Your task to perform on an android device: see tabs open on other devices in the chrome app Image 0: 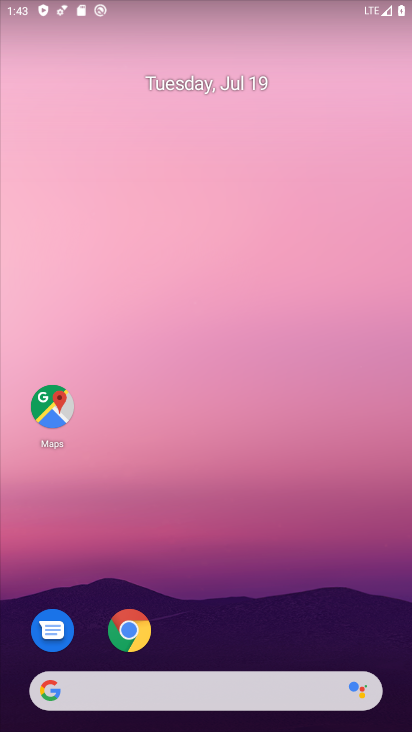
Step 0: click (134, 627)
Your task to perform on an android device: see tabs open on other devices in the chrome app Image 1: 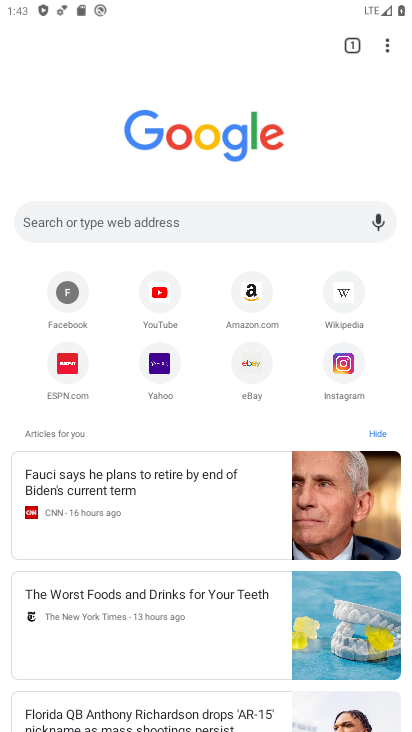
Step 1: click (384, 45)
Your task to perform on an android device: see tabs open on other devices in the chrome app Image 2: 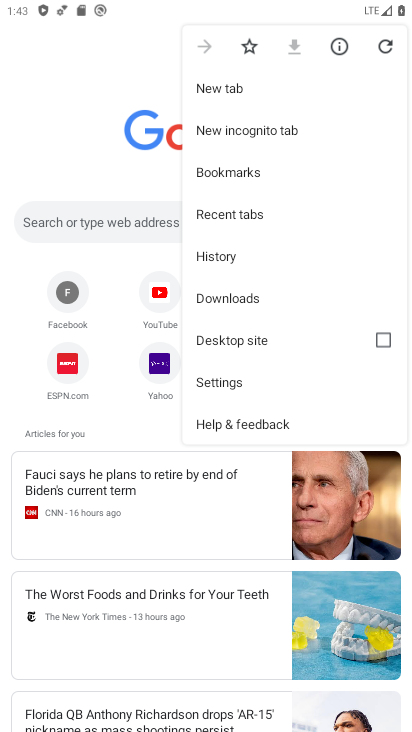
Step 2: click (267, 213)
Your task to perform on an android device: see tabs open on other devices in the chrome app Image 3: 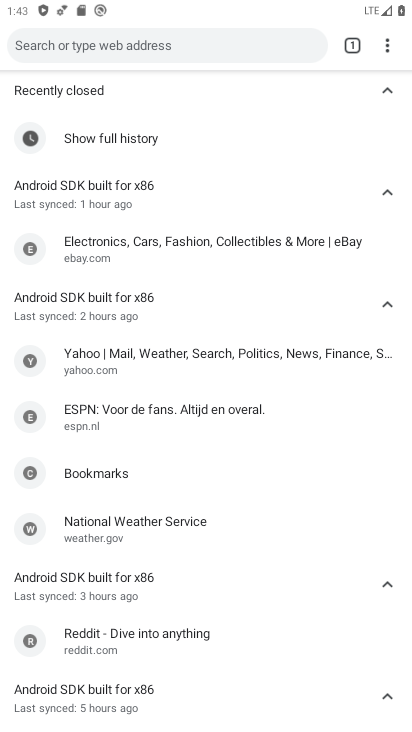
Step 3: task complete